Your task to perform on an android device: install app "Reddit" Image 0: 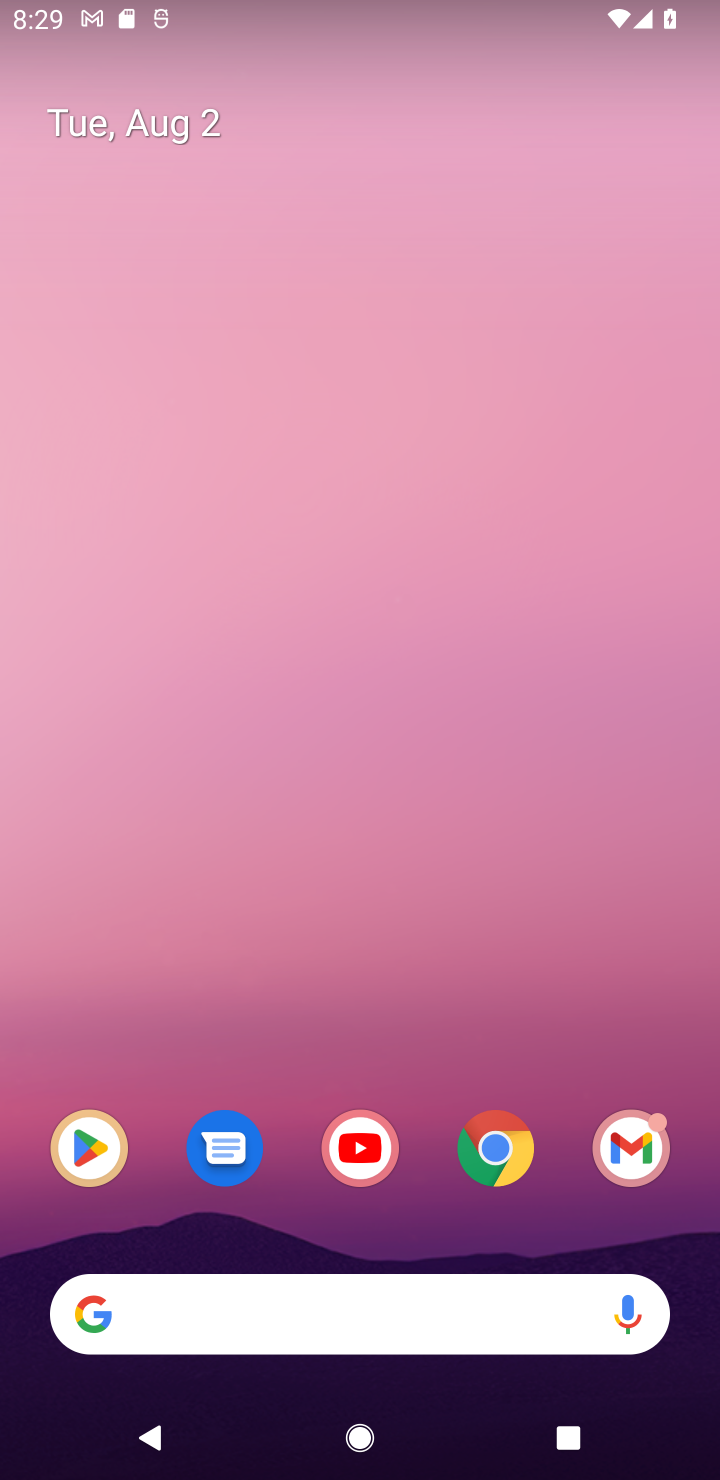
Step 0: drag from (403, 973) to (171, 179)
Your task to perform on an android device: install app "Reddit" Image 1: 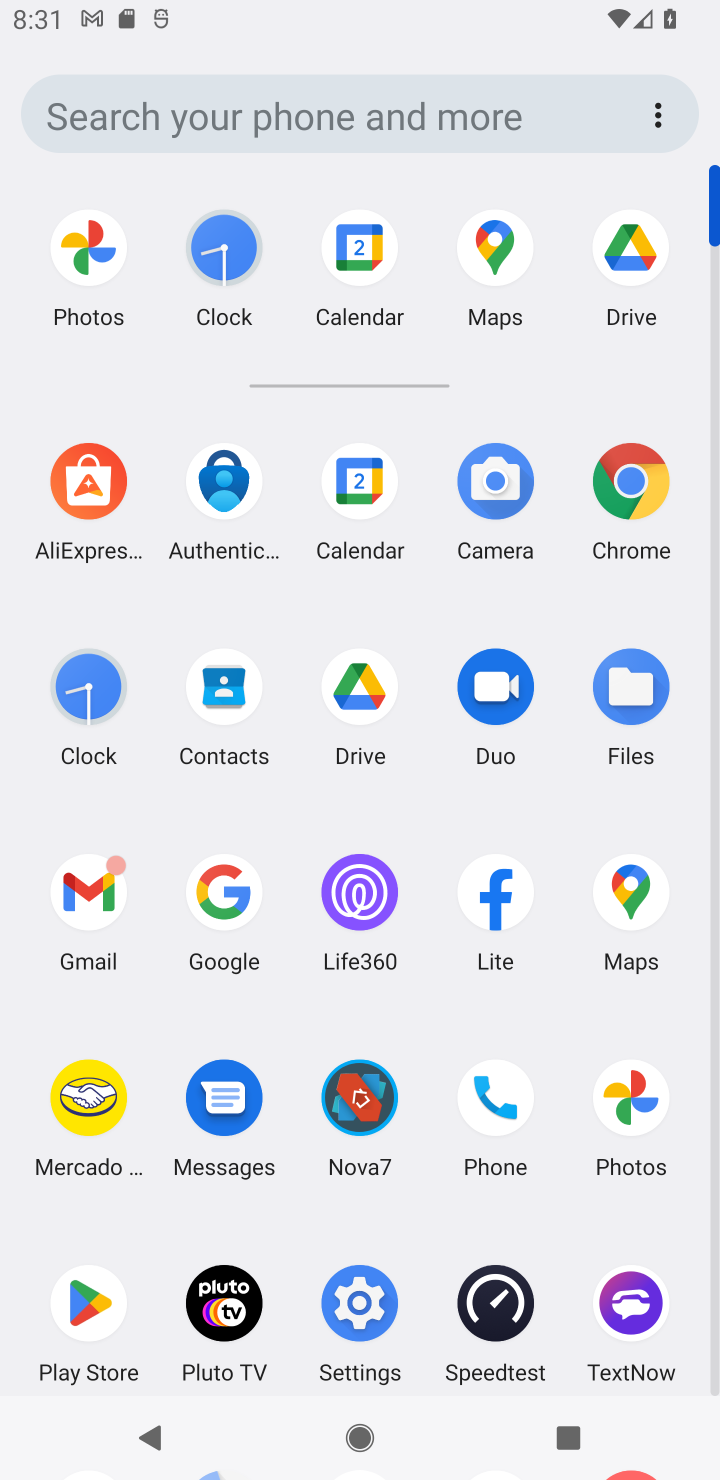
Step 1: click (55, 1274)
Your task to perform on an android device: install app "Reddit" Image 2: 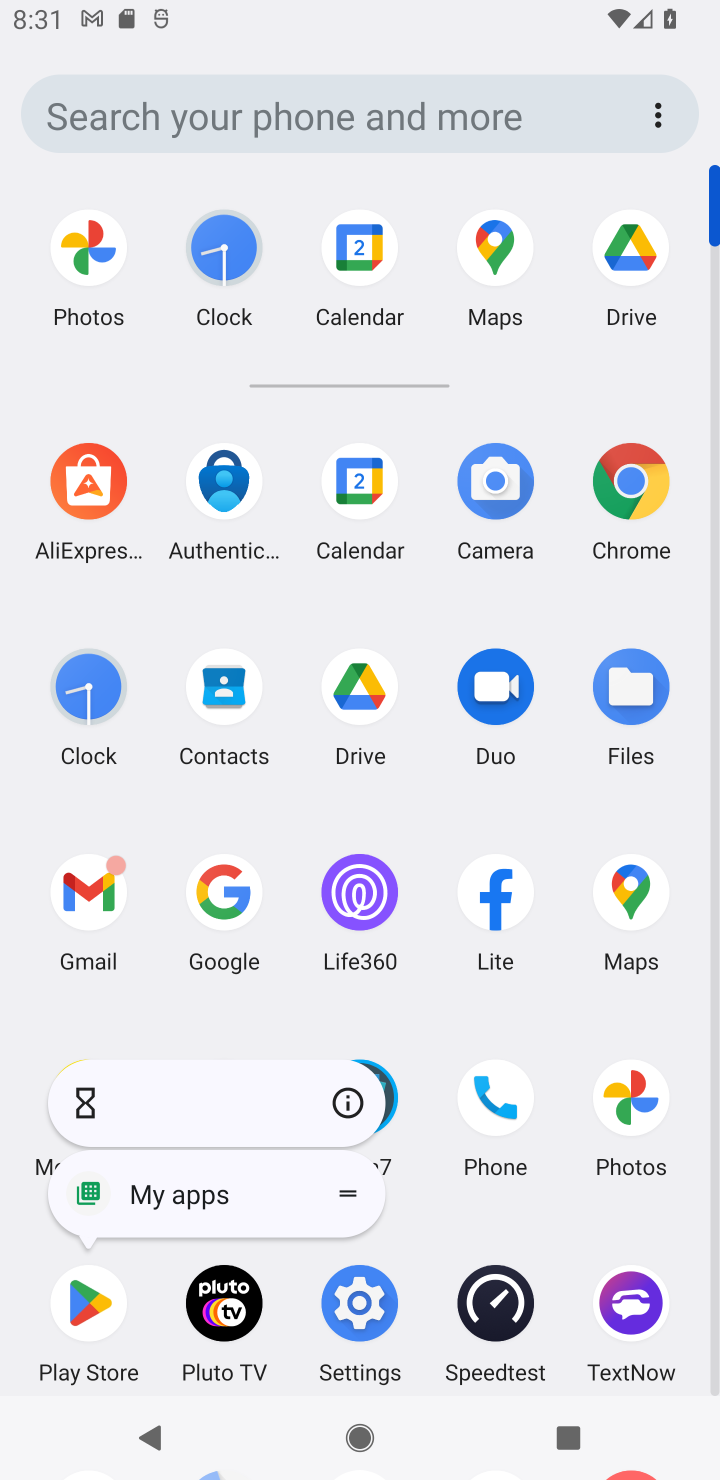
Step 2: click (68, 1322)
Your task to perform on an android device: install app "Reddit" Image 3: 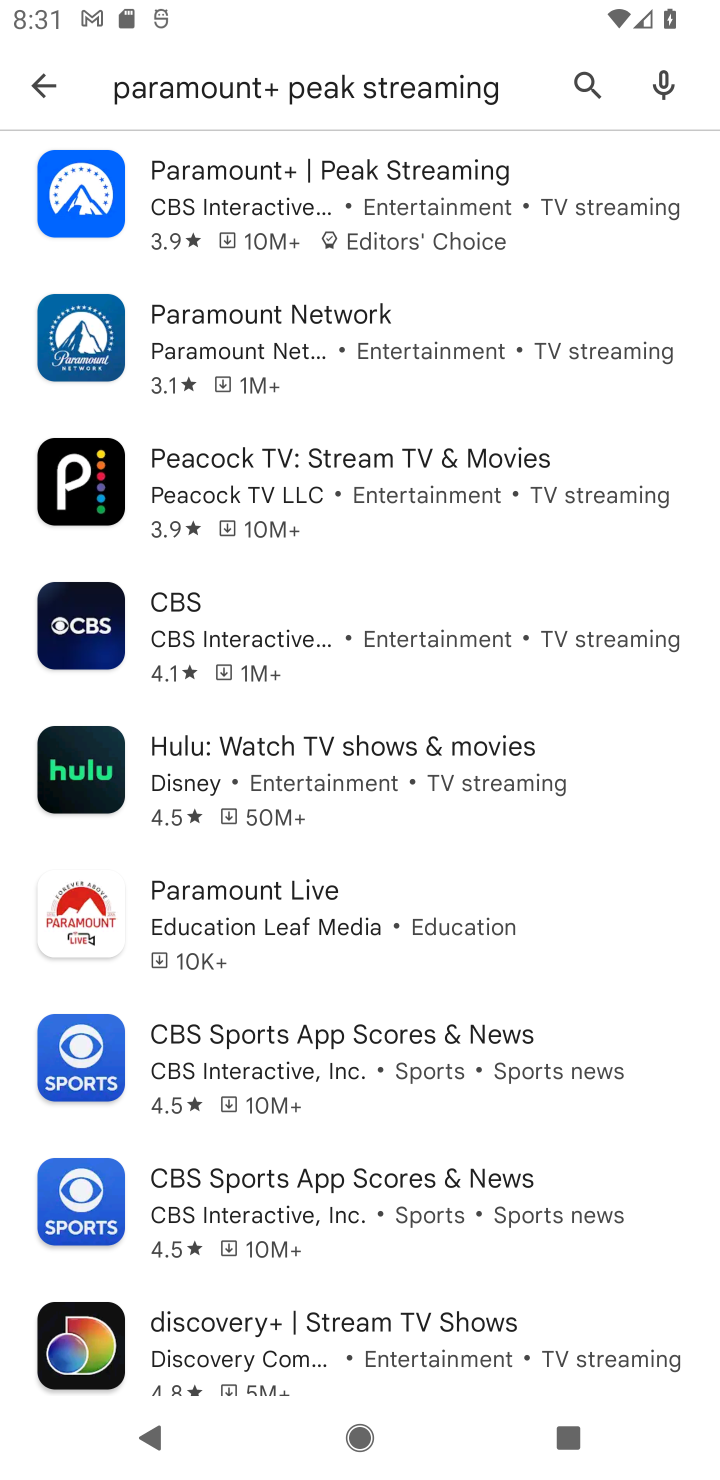
Step 3: press back button
Your task to perform on an android device: install app "Reddit" Image 4: 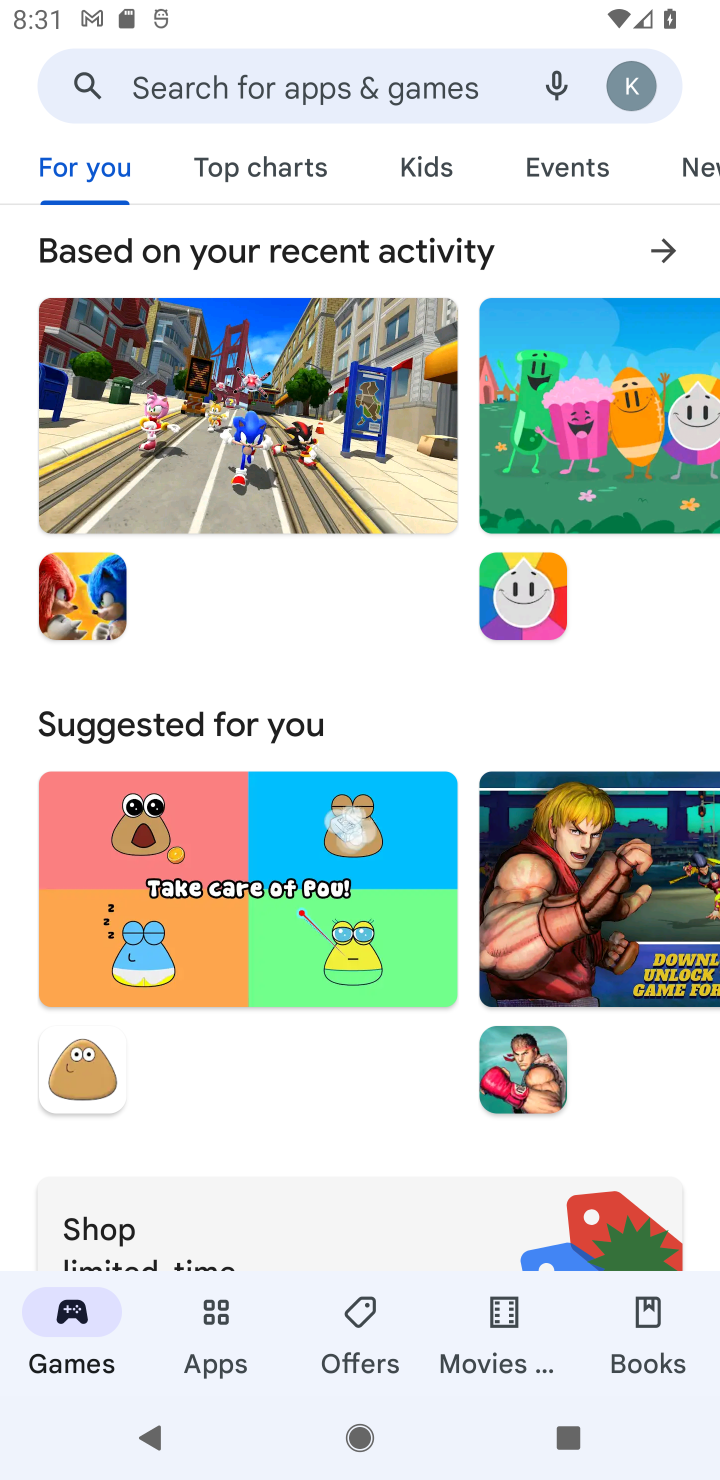
Step 4: click (238, 88)
Your task to perform on an android device: install app "Reddit" Image 5: 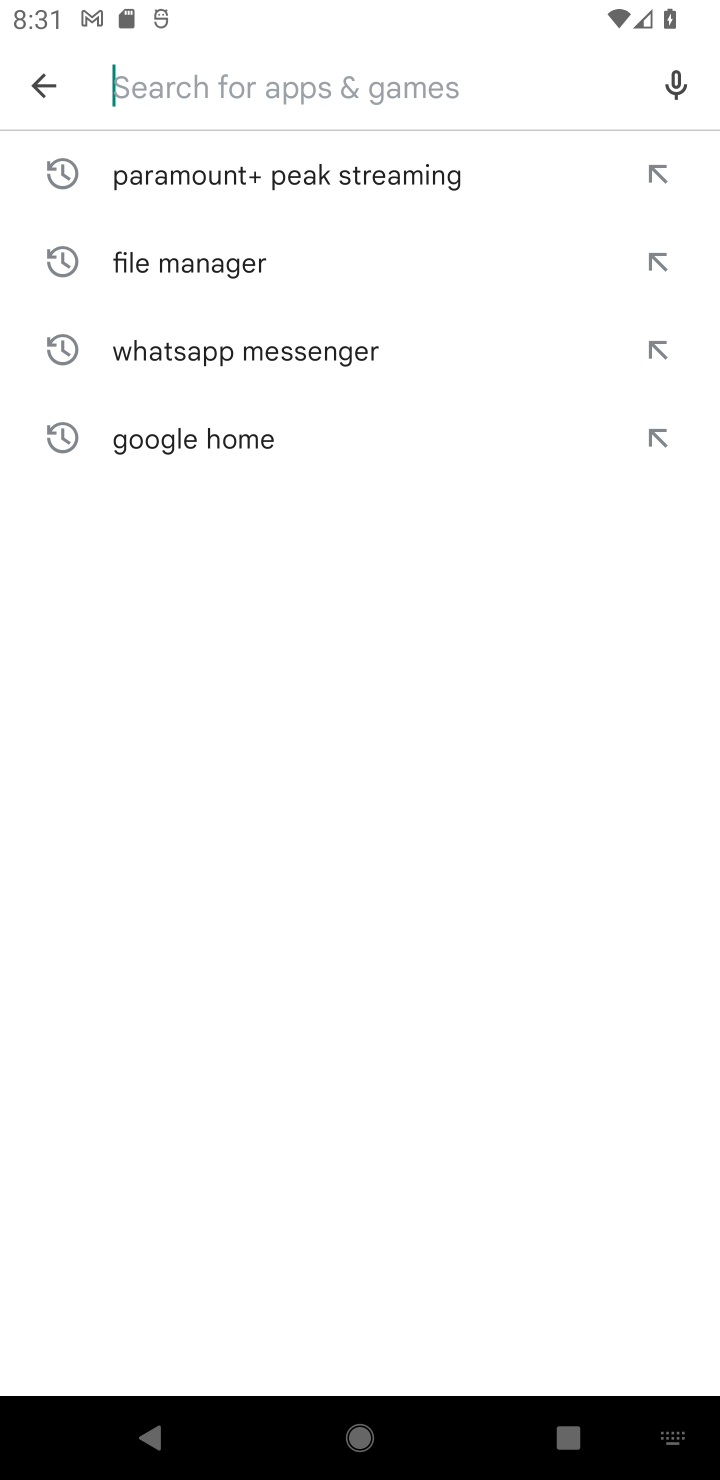
Step 5: type "Reddit"
Your task to perform on an android device: install app "Reddit" Image 6: 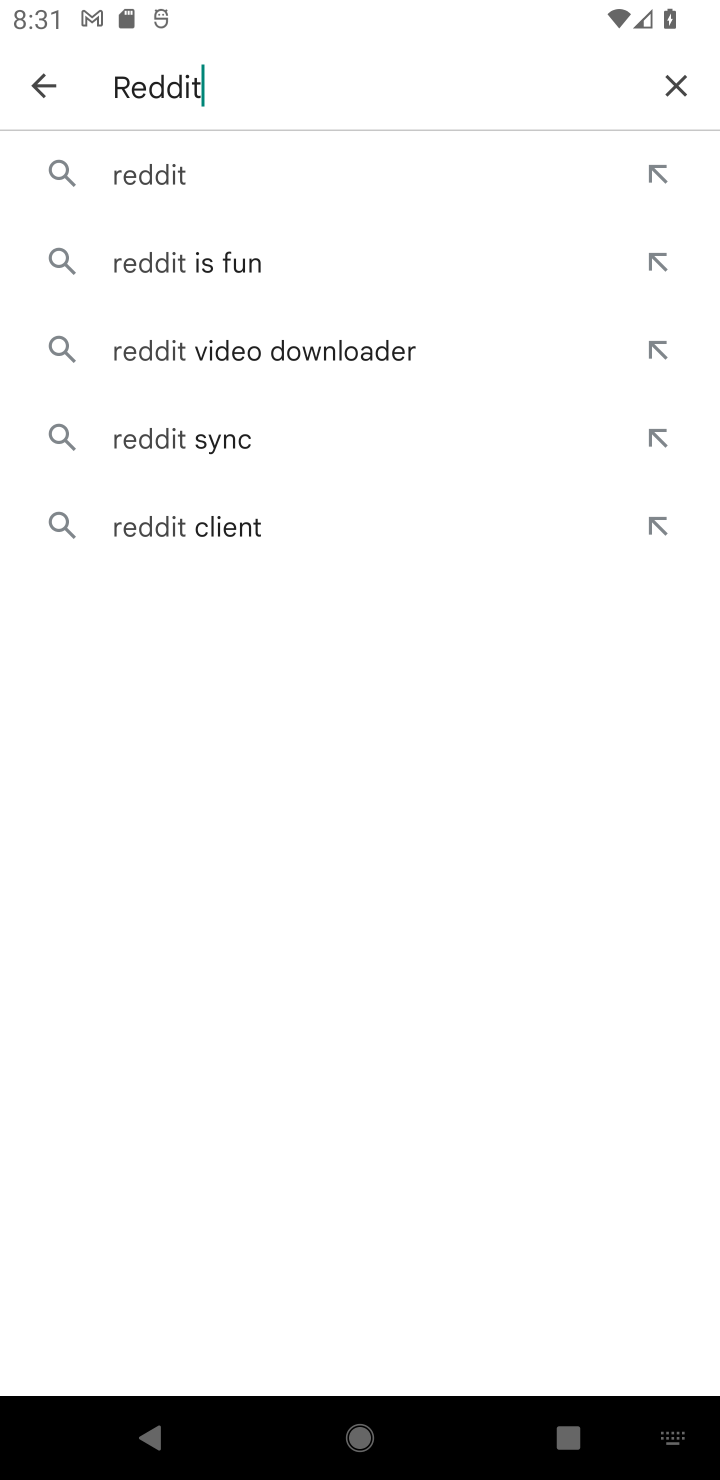
Step 6: click (230, 182)
Your task to perform on an android device: install app "Reddit" Image 7: 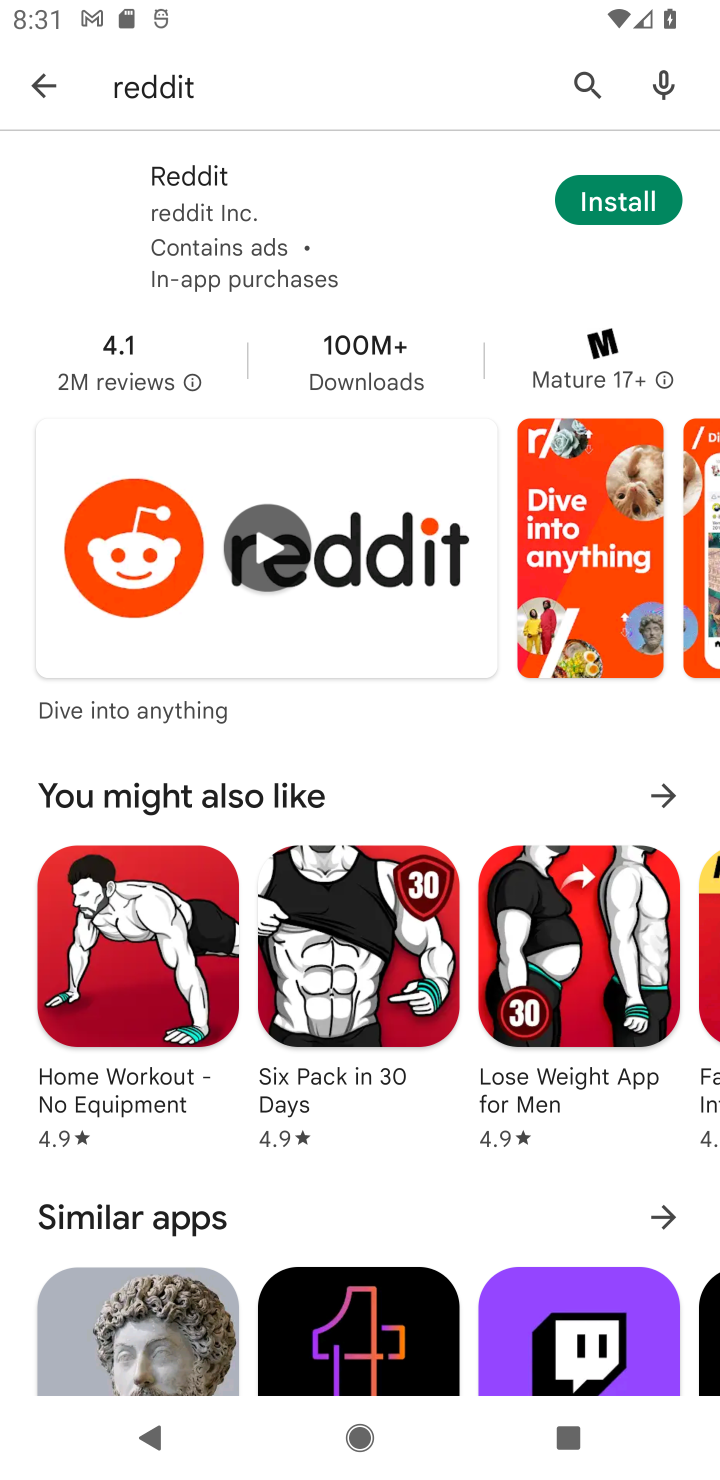
Step 7: click (620, 200)
Your task to perform on an android device: install app "Reddit" Image 8: 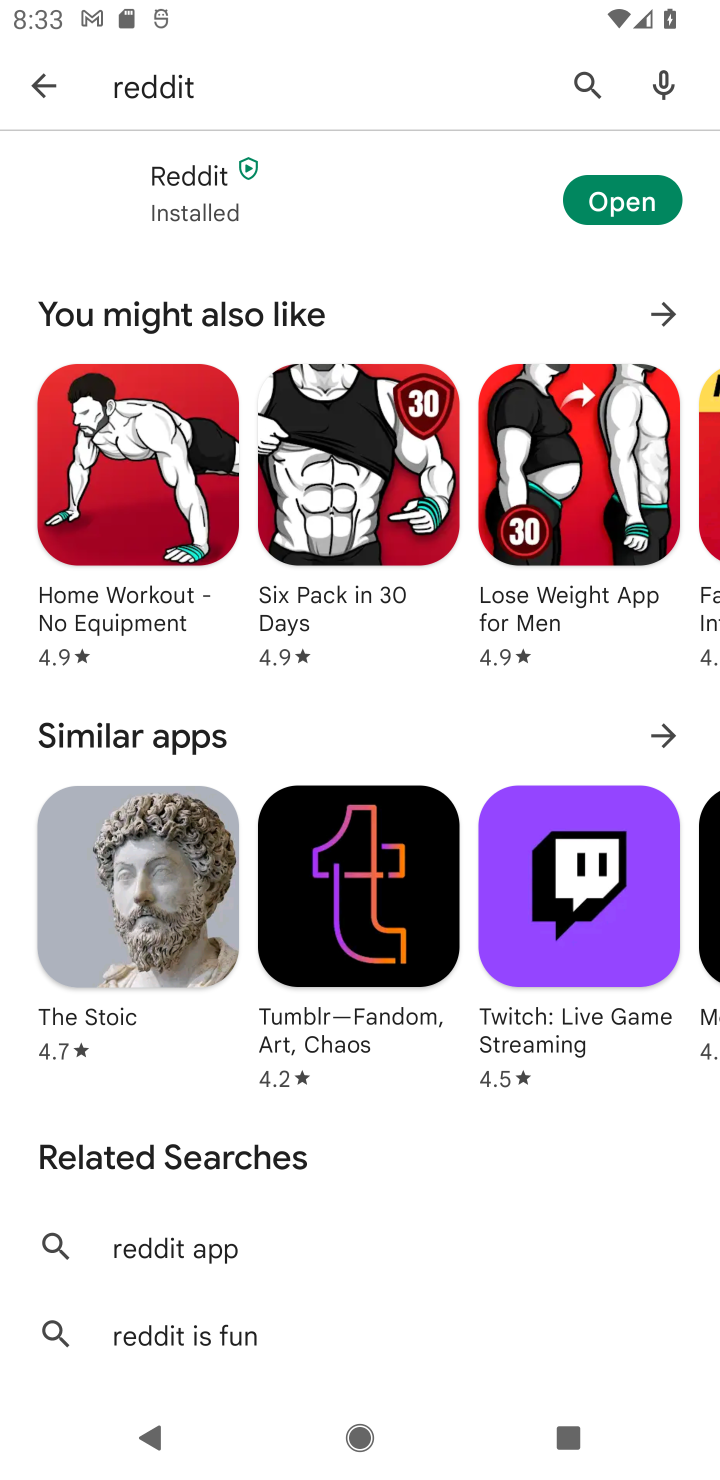
Step 8: task complete